Your task to perform on an android device: Go to Google Image 0: 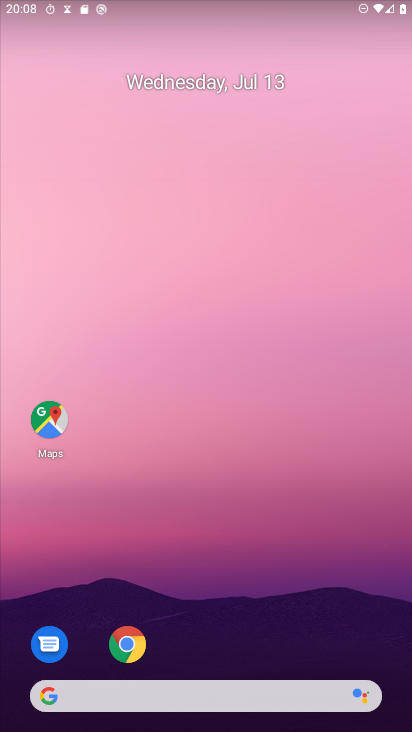
Step 0: drag from (195, 630) to (238, 100)
Your task to perform on an android device: Go to Google Image 1: 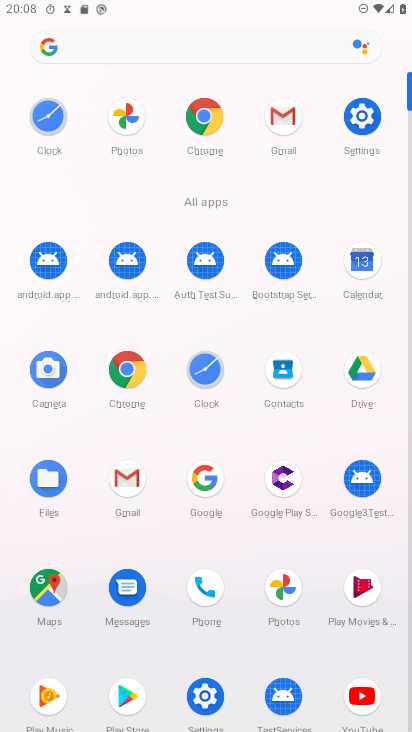
Step 1: click (196, 473)
Your task to perform on an android device: Go to Google Image 2: 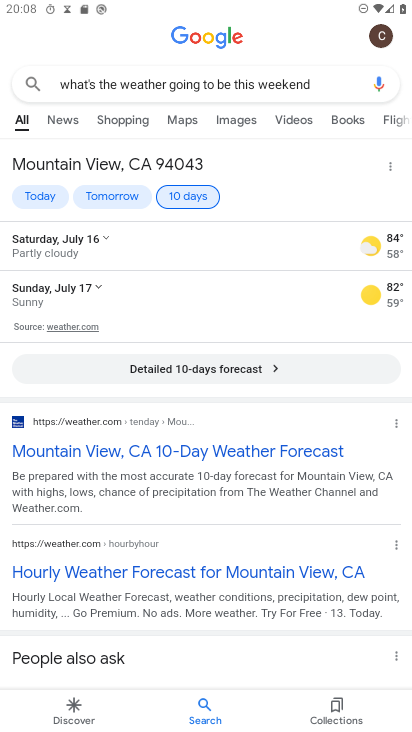
Step 2: task complete